Your task to perform on an android device: check the backup settings in the google photos Image 0: 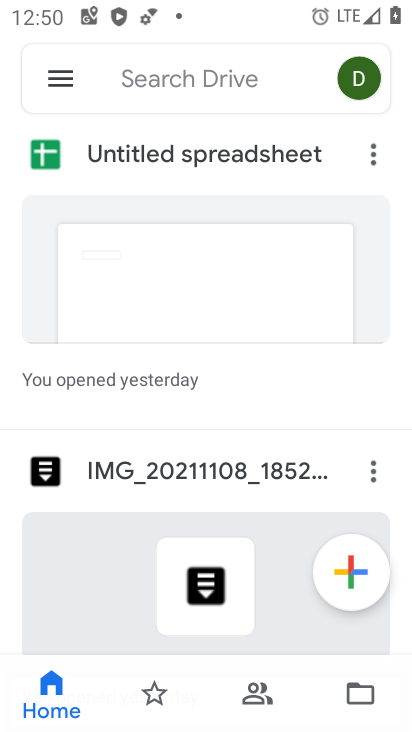
Step 0: press home button
Your task to perform on an android device: check the backup settings in the google photos Image 1: 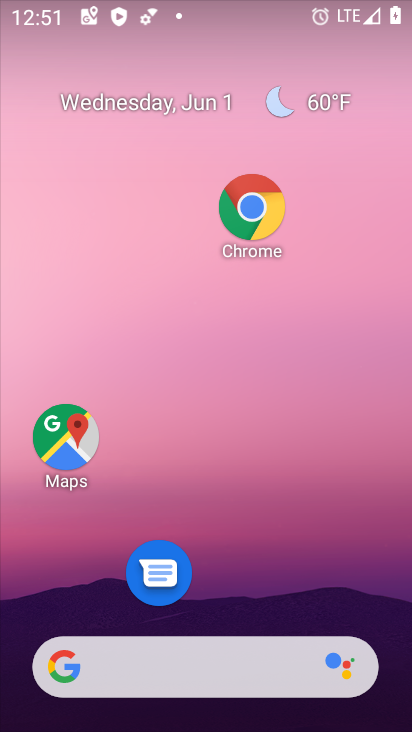
Step 1: drag from (220, 621) to (233, 237)
Your task to perform on an android device: check the backup settings in the google photos Image 2: 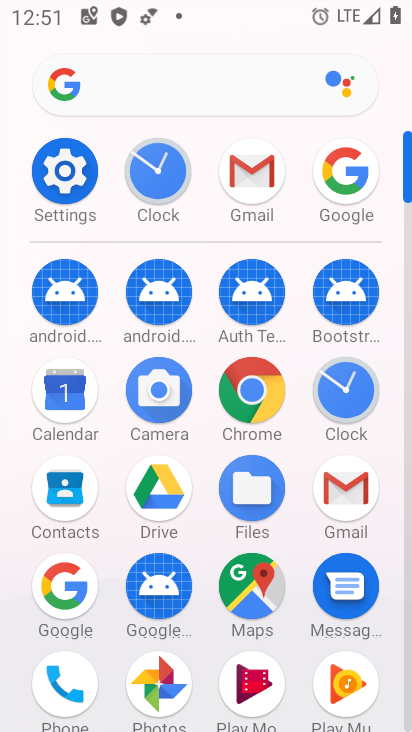
Step 2: drag from (200, 553) to (197, 308)
Your task to perform on an android device: check the backup settings in the google photos Image 3: 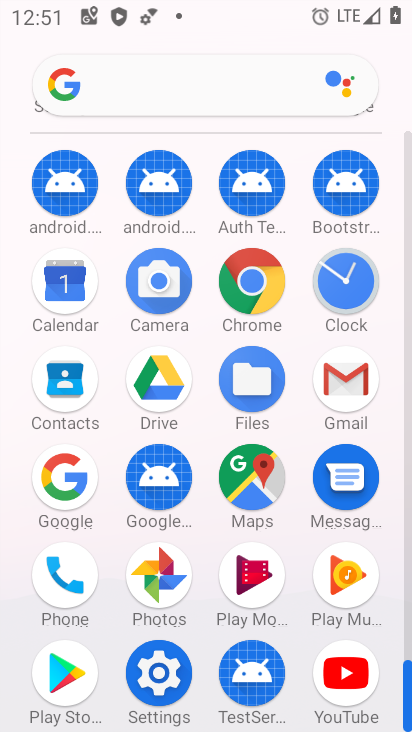
Step 3: click (136, 538)
Your task to perform on an android device: check the backup settings in the google photos Image 4: 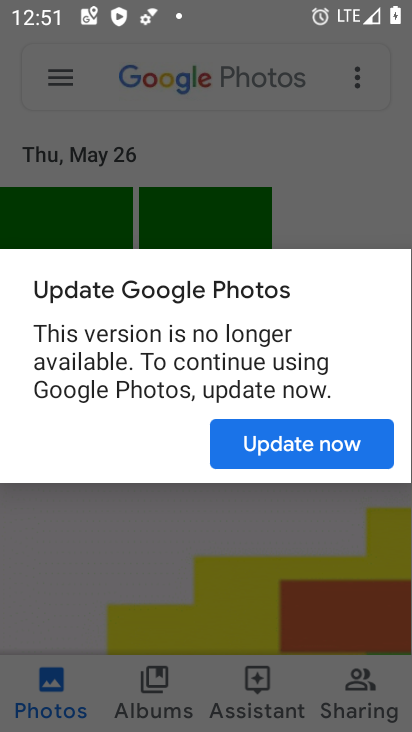
Step 4: click (263, 446)
Your task to perform on an android device: check the backup settings in the google photos Image 5: 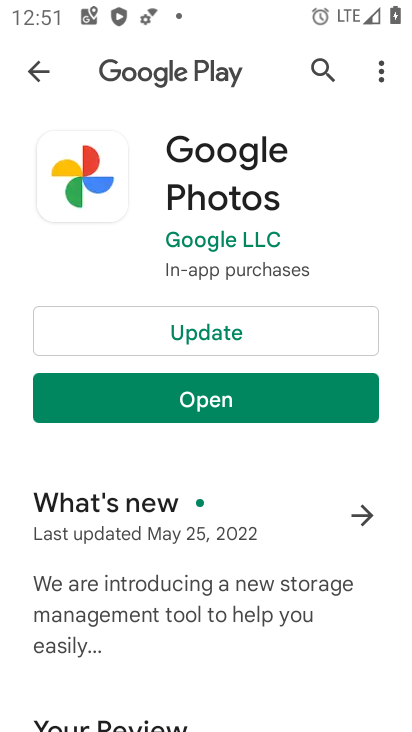
Step 5: click (242, 403)
Your task to perform on an android device: check the backup settings in the google photos Image 6: 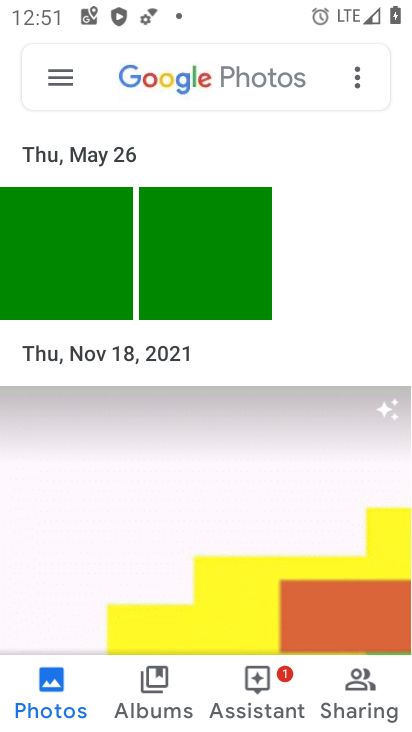
Step 6: click (43, 79)
Your task to perform on an android device: check the backup settings in the google photos Image 7: 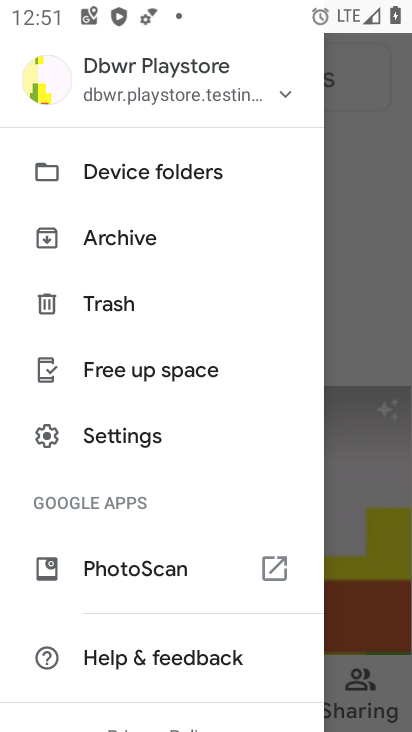
Step 7: click (133, 103)
Your task to perform on an android device: check the backup settings in the google photos Image 8: 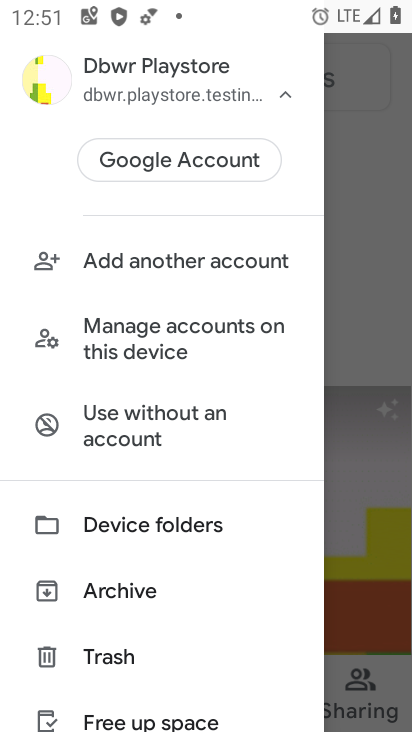
Step 8: drag from (210, 651) to (211, 287)
Your task to perform on an android device: check the backup settings in the google photos Image 9: 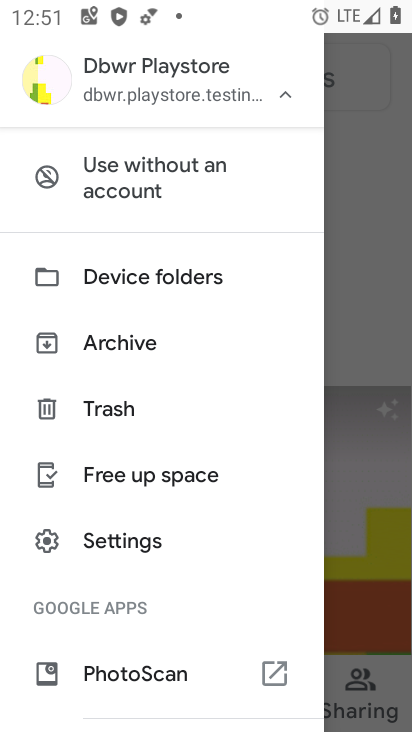
Step 9: click (178, 543)
Your task to perform on an android device: check the backup settings in the google photos Image 10: 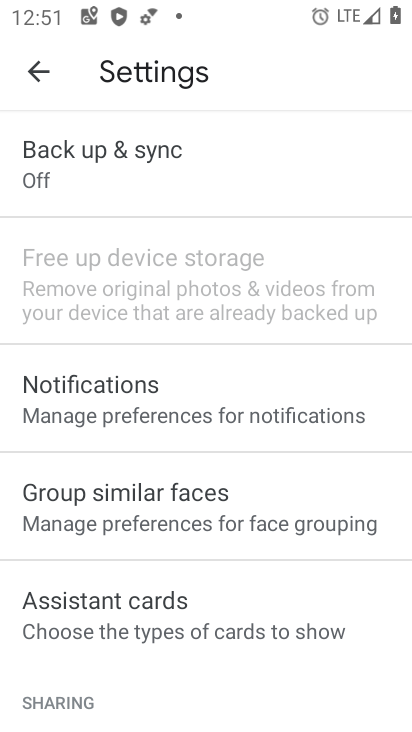
Step 10: click (129, 167)
Your task to perform on an android device: check the backup settings in the google photos Image 11: 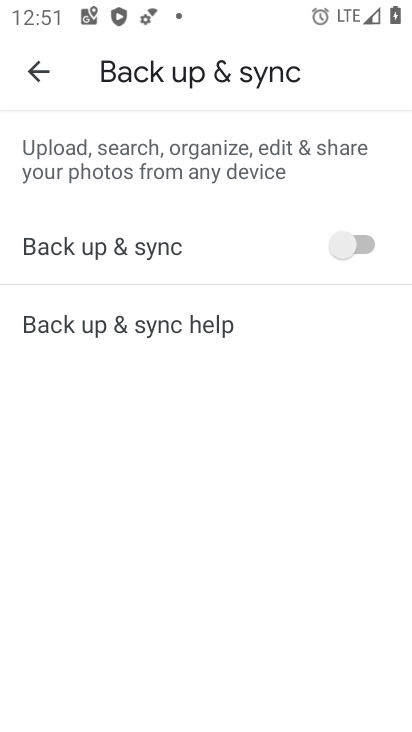
Step 11: task complete